Your task to perform on an android device: toggle translation in the chrome app Image 0: 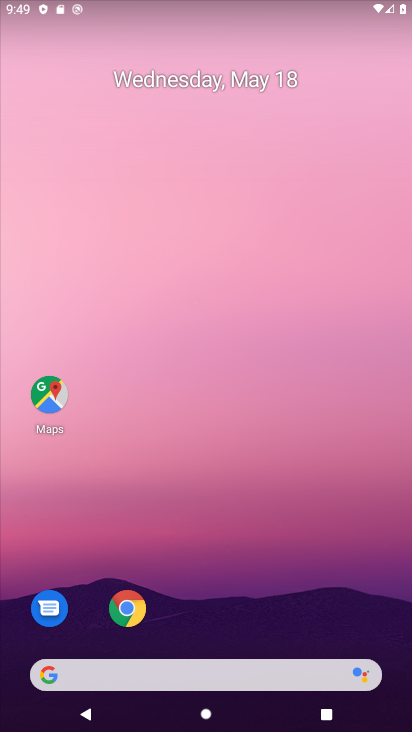
Step 0: drag from (241, 637) to (285, 201)
Your task to perform on an android device: toggle translation in the chrome app Image 1: 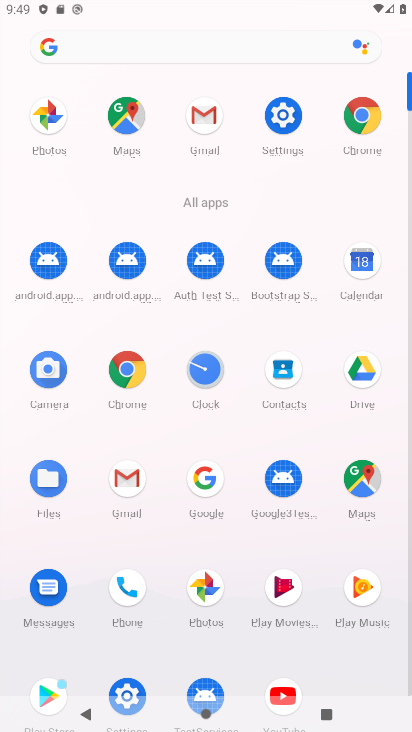
Step 1: click (118, 374)
Your task to perform on an android device: toggle translation in the chrome app Image 2: 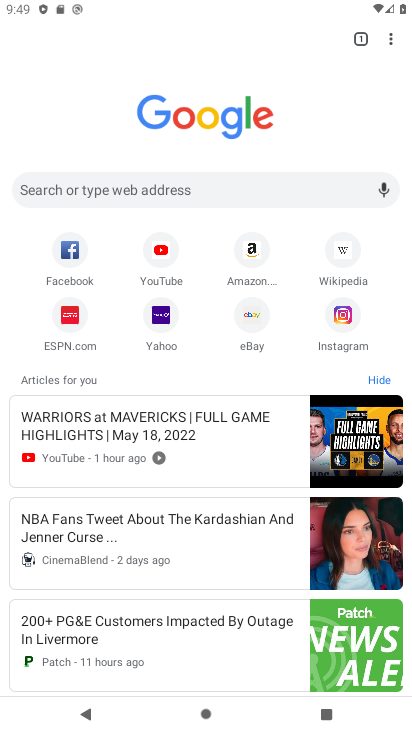
Step 2: click (386, 38)
Your task to perform on an android device: toggle translation in the chrome app Image 3: 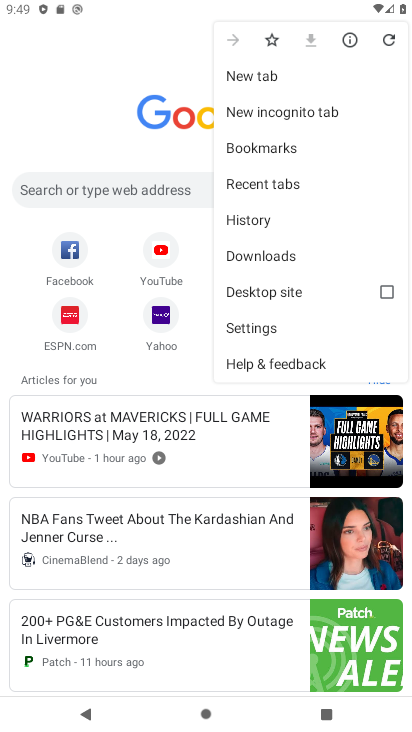
Step 3: click (262, 330)
Your task to perform on an android device: toggle translation in the chrome app Image 4: 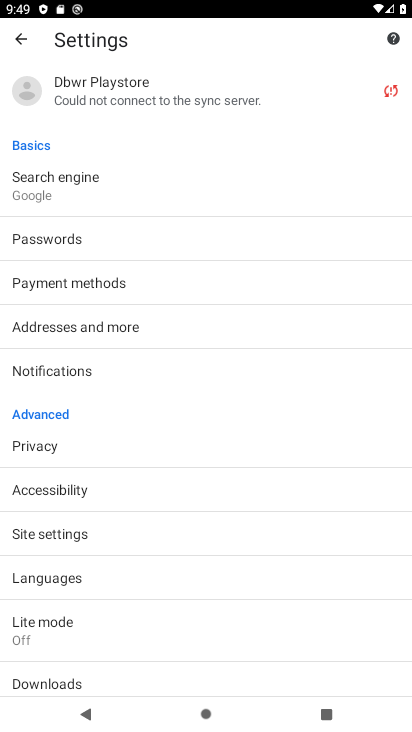
Step 4: click (49, 595)
Your task to perform on an android device: toggle translation in the chrome app Image 5: 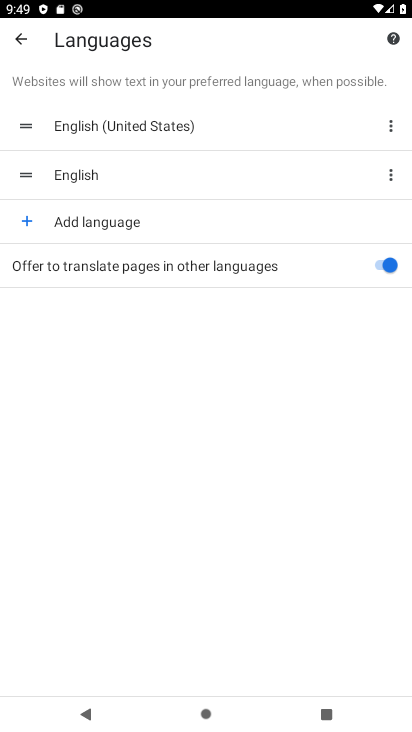
Step 5: click (345, 266)
Your task to perform on an android device: toggle translation in the chrome app Image 6: 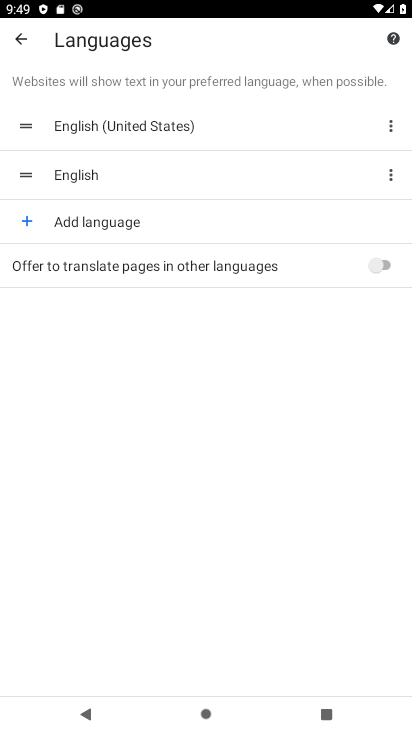
Step 6: task complete